Your task to perform on an android device: uninstall "Chime – Mobile Banking" Image 0: 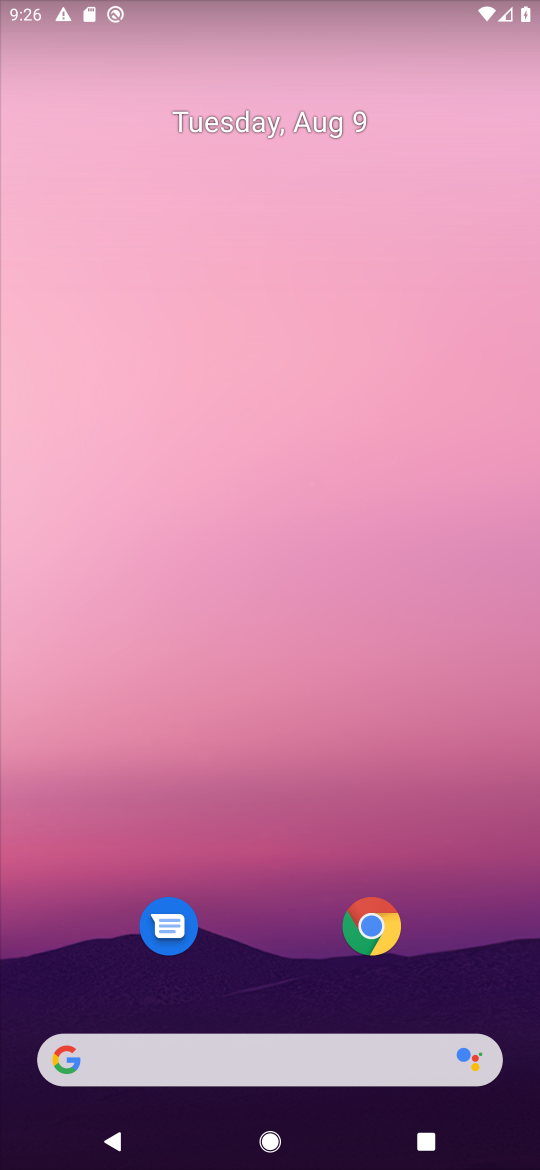
Step 0: drag from (230, 1007) to (296, 411)
Your task to perform on an android device: uninstall "Chime – Mobile Banking" Image 1: 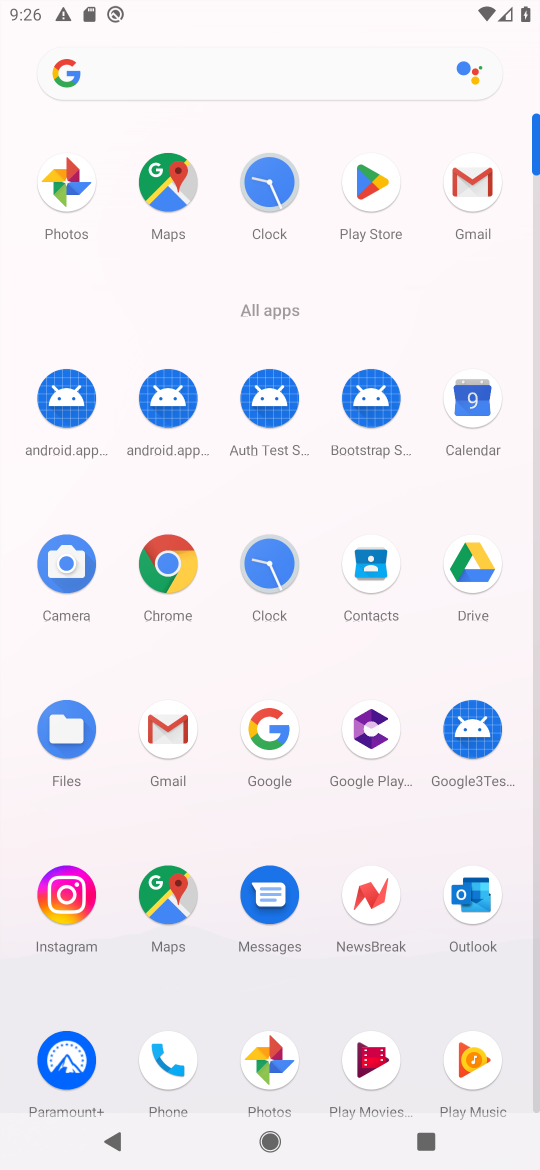
Step 1: drag from (209, 968) to (215, 699)
Your task to perform on an android device: uninstall "Chime – Mobile Banking" Image 2: 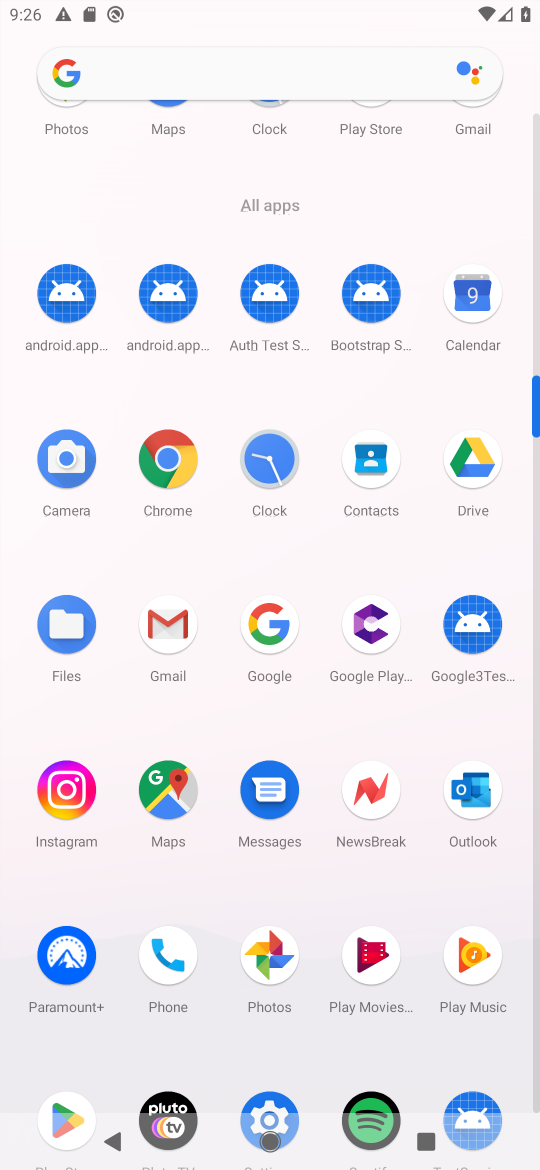
Step 2: click (62, 1094)
Your task to perform on an android device: uninstall "Chime – Mobile Banking" Image 3: 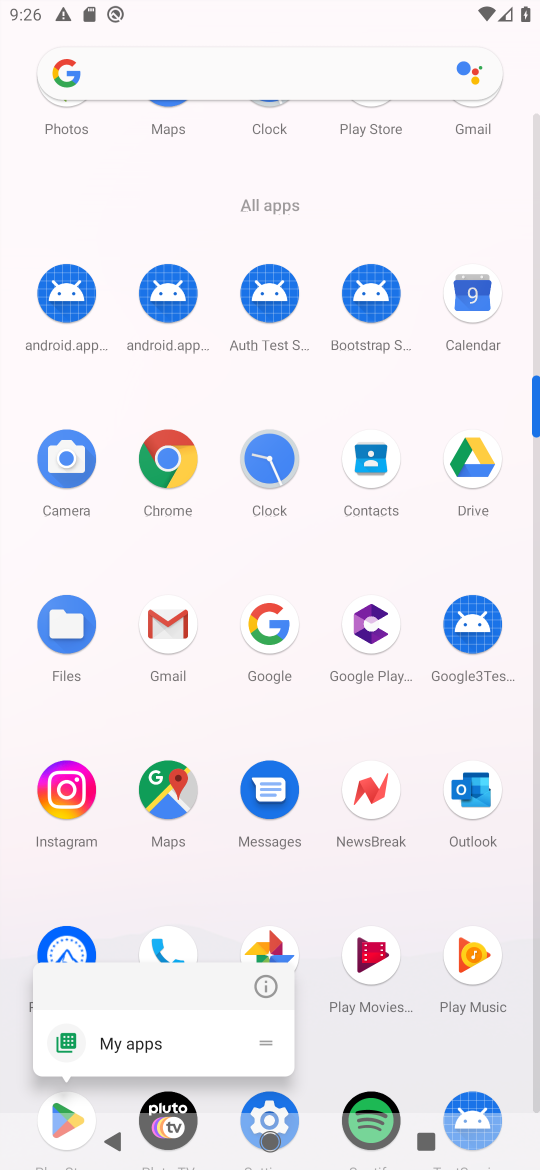
Step 3: click (62, 1102)
Your task to perform on an android device: uninstall "Chime – Mobile Banking" Image 4: 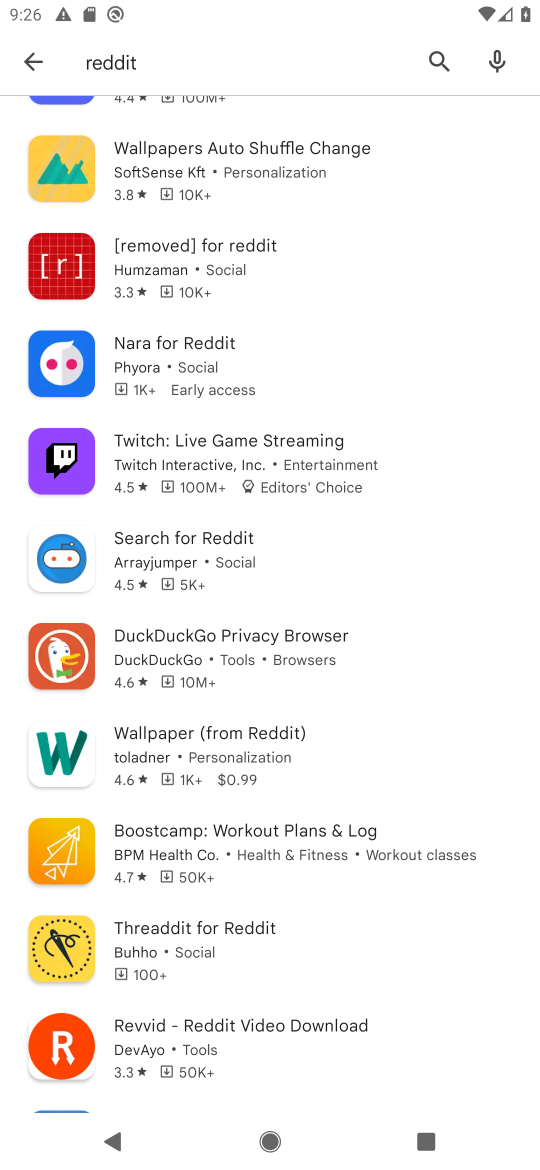
Step 4: click (135, 52)
Your task to perform on an android device: uninstall "Chime – Mobile Banking" Image 5: 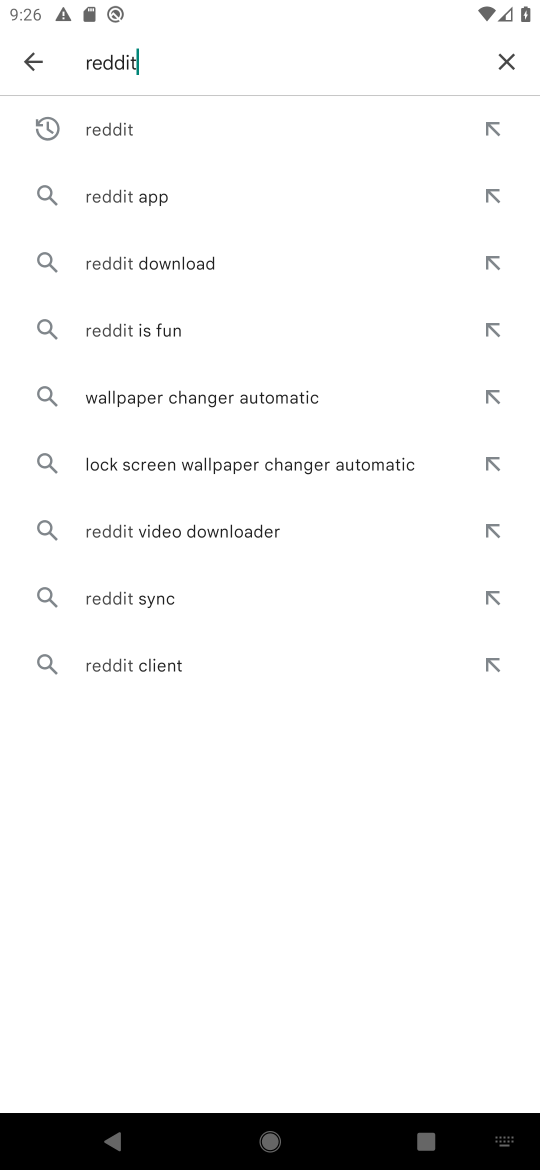
Step 5: click (509, 58)
Your task to perform on an android device: uninstall "Chime – Mobile Banking" Image 6: 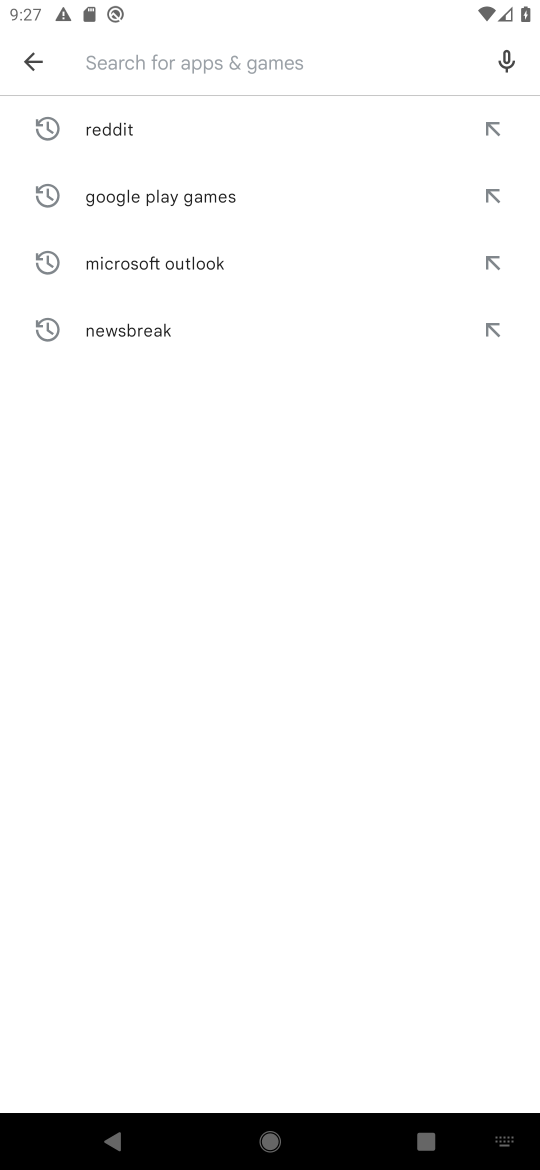
Step 6: type "Chime"
Your task to perform on an android device: uninstall "Chime – Mobile Banking" Image 7: 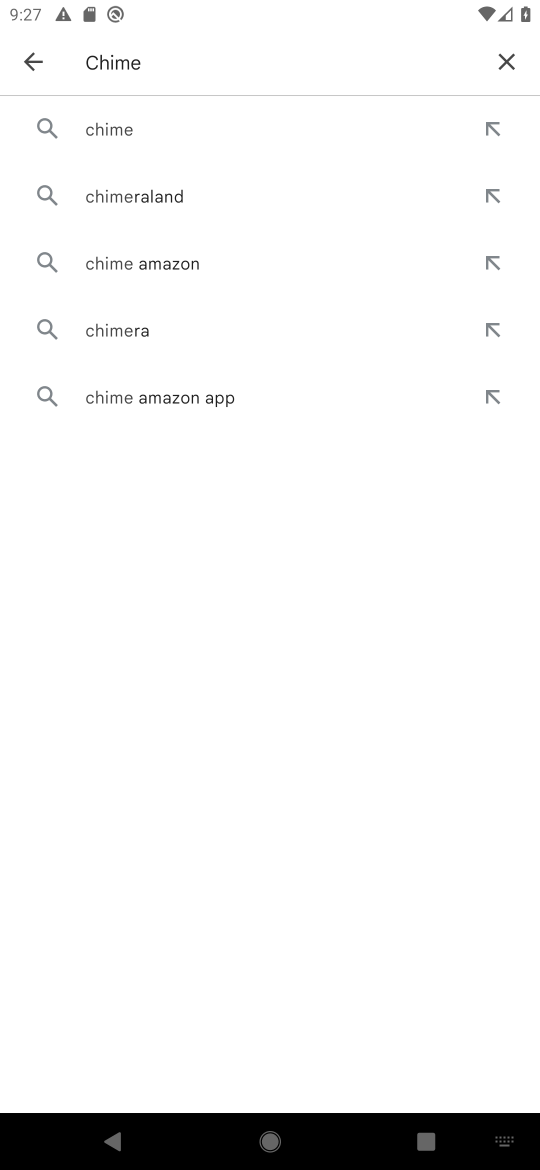
Step 7: click (129, 139)
Your task to perform on an android device: uninstall "Chime – Mobile Banking" Image 8: 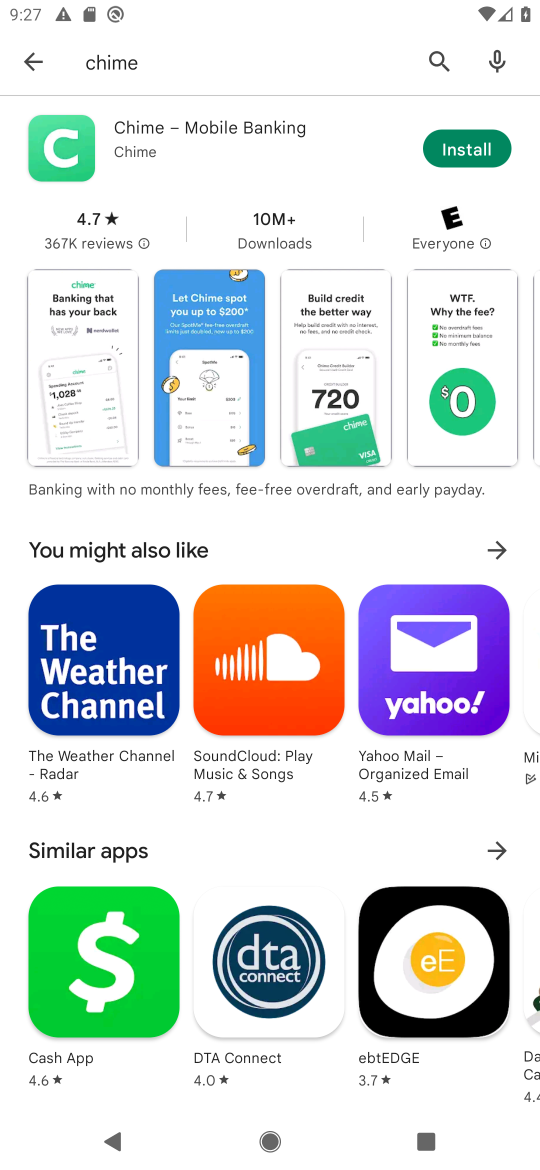
Step 8: task complete